Your task to perform on an android device: Open ESPN.com Image 0: 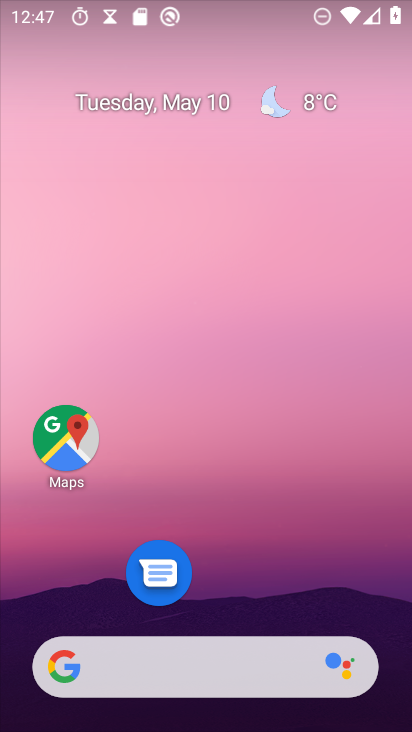
Step 0: drag from (258, 608) to (268, 26)
Your task to perform on an android device: Open ESPN.com Image 1: 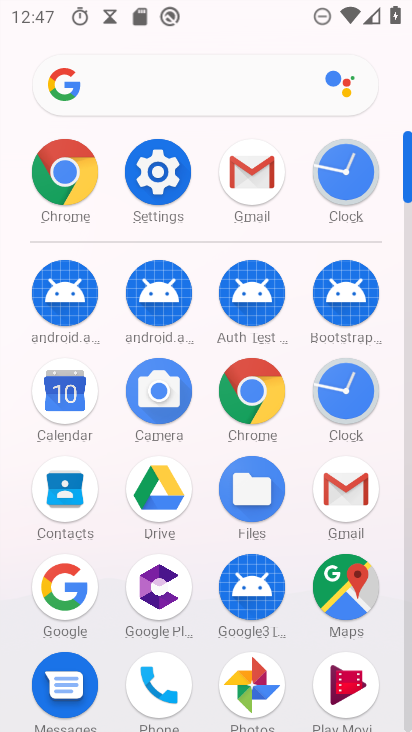
Step 1: click (70, 186)
Your task to perform on an android device: Open ESPN.com Image 2: 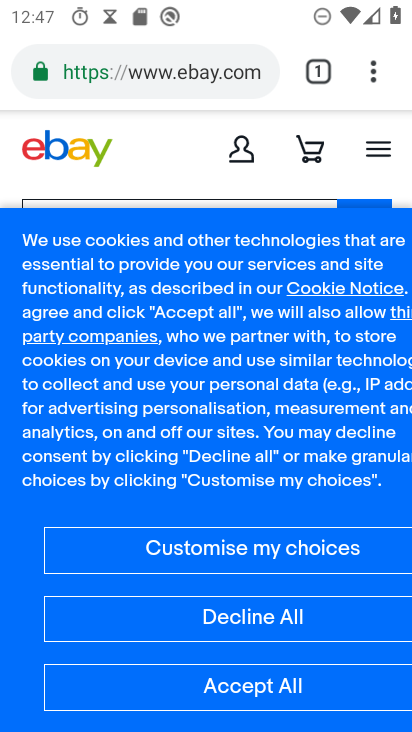
Step 2: click (204, 66)
Your task to perform on an android device: Open ESPN.com Image 3: 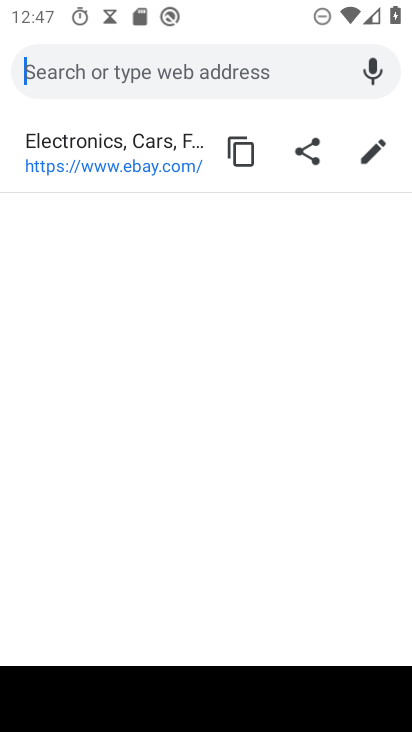
Step 3: type "ESPN.com"
Your task to perform on an android device: Open ESPN.com Image 4: 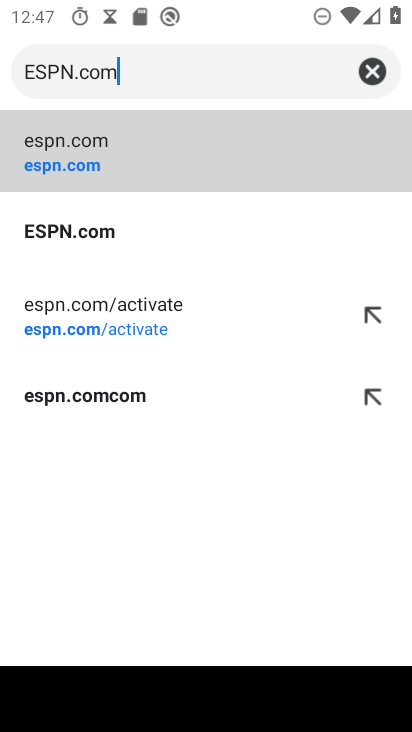
Step 4: click (127, 174)
Your task to perform on an android device: Open ESPN.com Image 5: 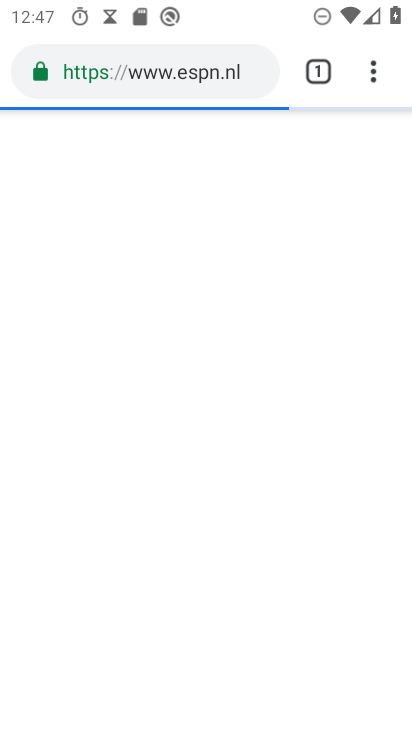
Step 5: task complete